Your task to perform on an android device: toggle wifi Image 0: 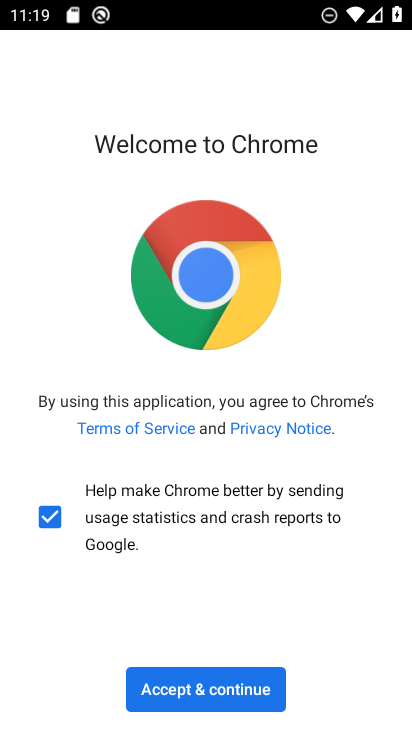
Step 0: press home button
Your task to perform on an android device: toggle wifi Image 1: 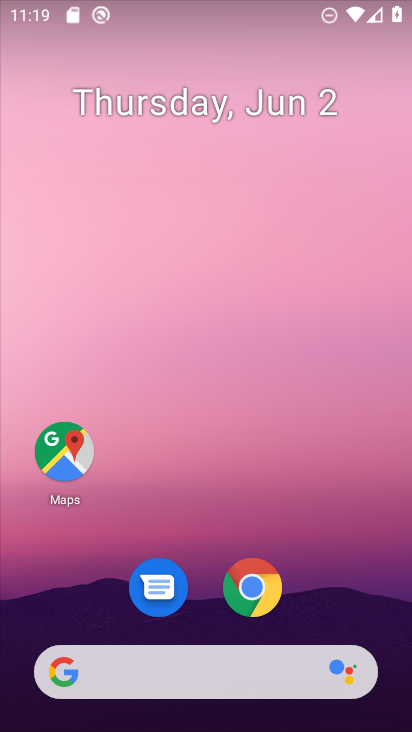
Step 1: drag from (379, 612) to (335, 238)
Your task to perform on an android device: toggle wifi Image 2: 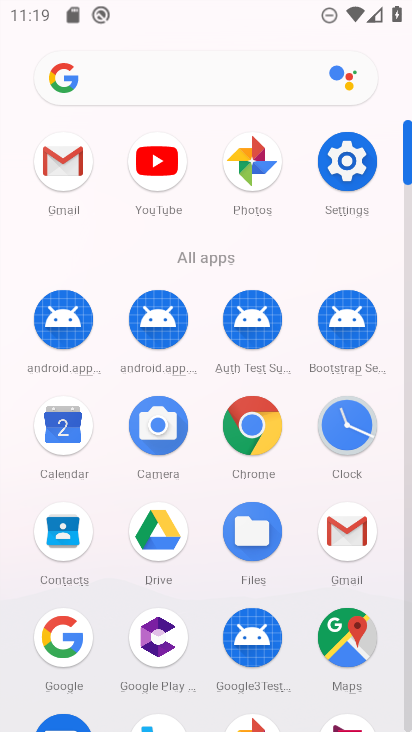
Step 2: click (356, 166)
Your task to perform on an android device: toggle wifi Image 3: 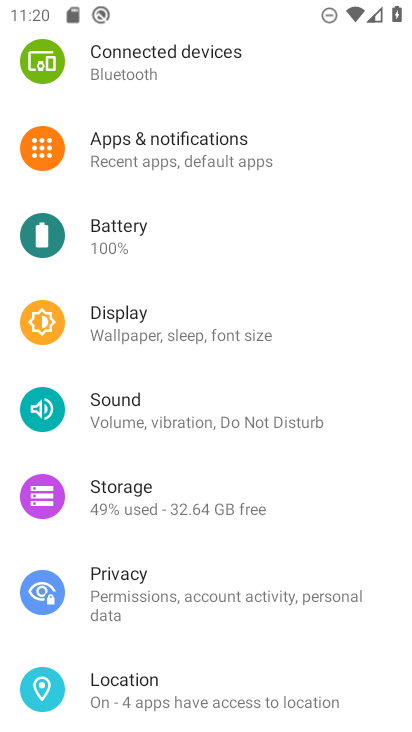
Step 3: drag from (205, 198) to (140, 623)
Your task to perform on an android device: toggle wifi Image 4: 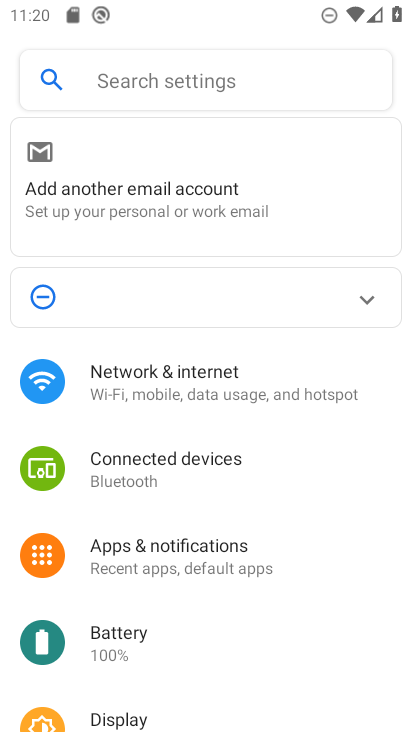
Step 4: click (150, 380)
Your task to perform on an android device: toggle wifi Image 5: 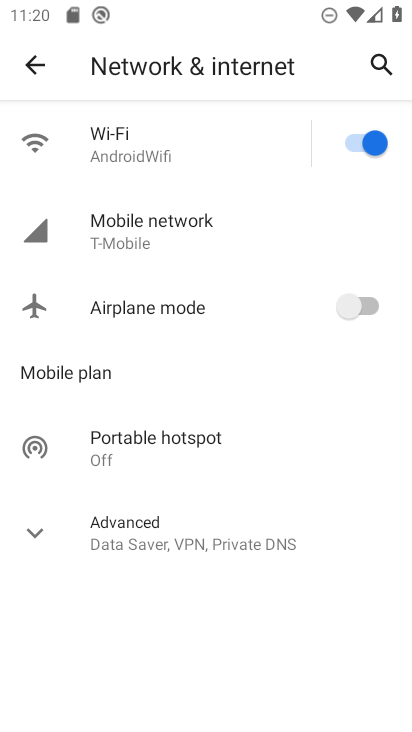
Step 5: click (368, 157)
Your task to perform on an android device: toggle wifi Image 6: 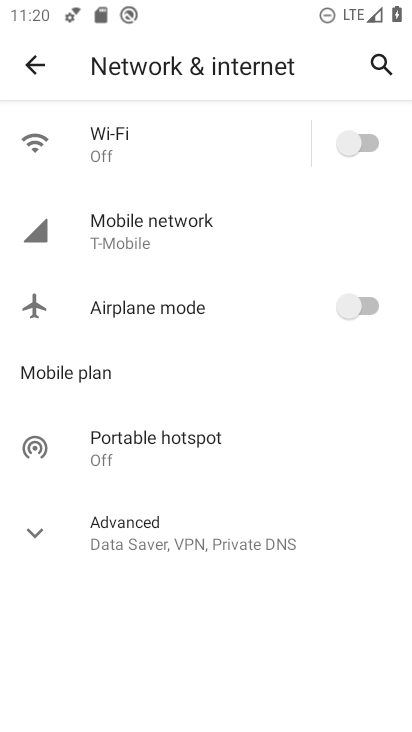
Step 6: task complete